Your task to perform on an android device: search for starred emails in the gmail app Image 0: 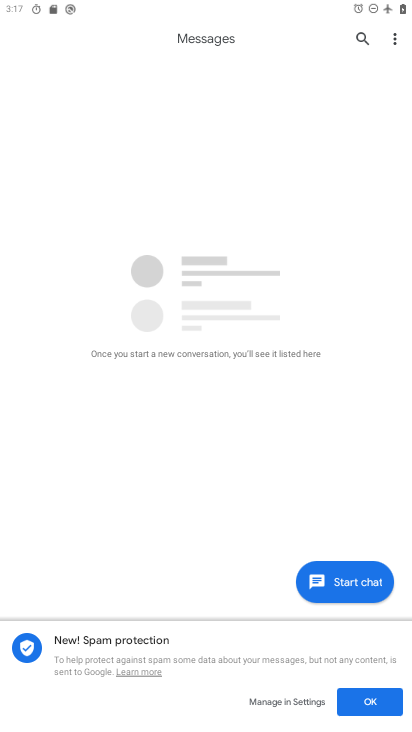
Step 0: press home button
Your task to perform on an android device: search for starred emails in the gmail app Image 1: 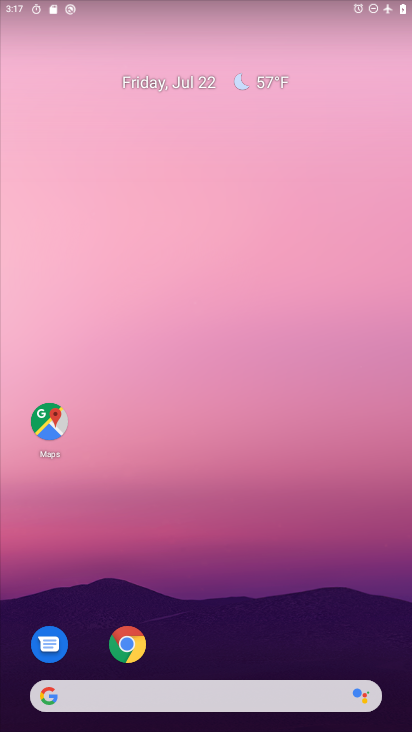
Step 1: drag from (221, 644) to (228, 192)
Your task to perform on an android device: search for starred emails in the gmail app Image 2: 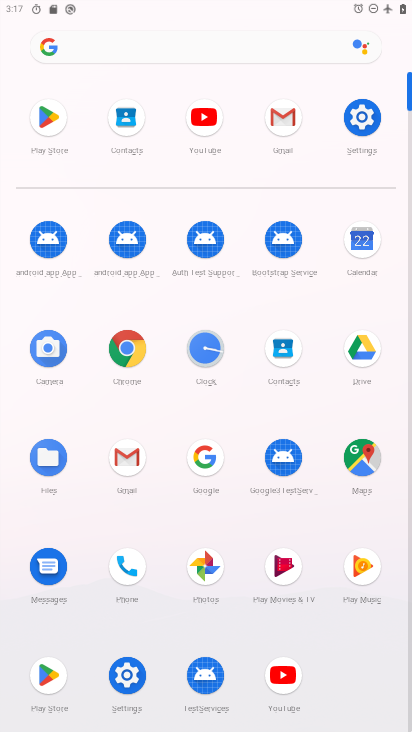
Step 2: click (287, 147)
Your task to perform on an android device: search for starred emails in the gmail app Image 3: 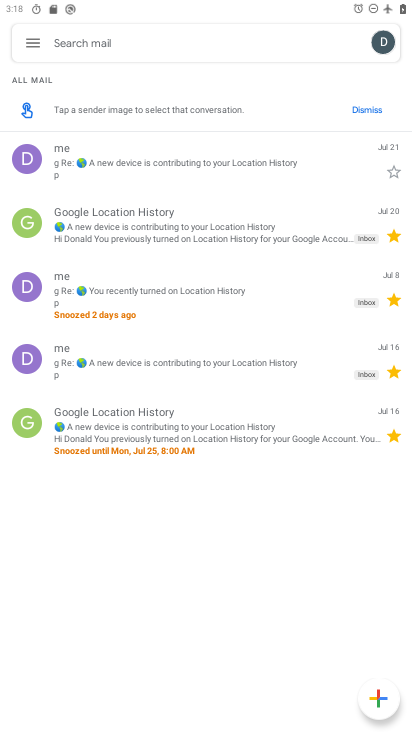
Step 3: click (43, 44)
Your task to perform on an android device: search for starred emails in the gmail app Image 4: 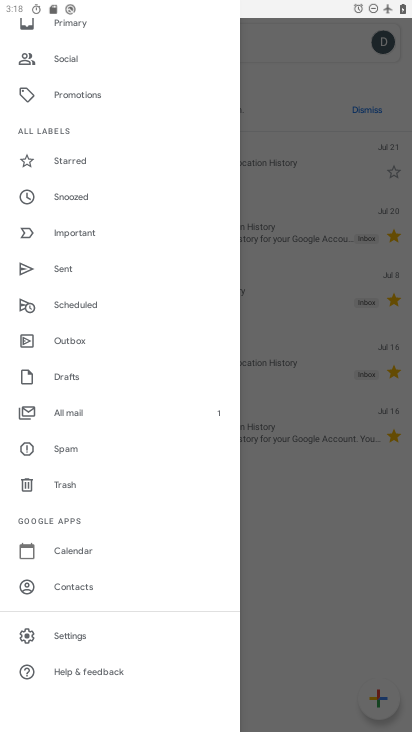
Step 4: click (84, 157)
Your task to perform on an android device: search for starred emails in the gmail app Image 5: 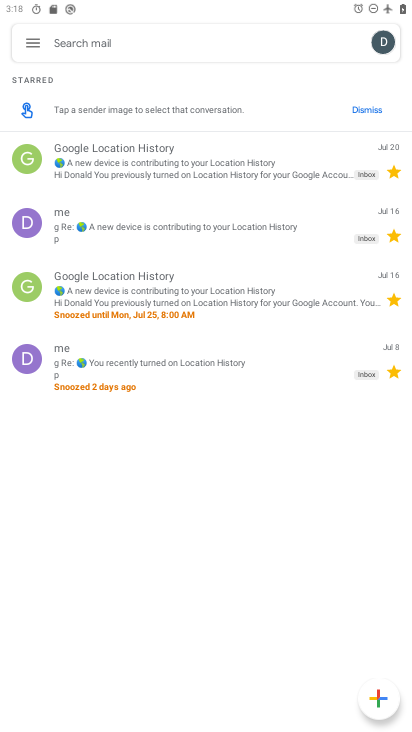
Step 5: task complete